Your task to perform on an android device: find photos in the google photos app Image 0: 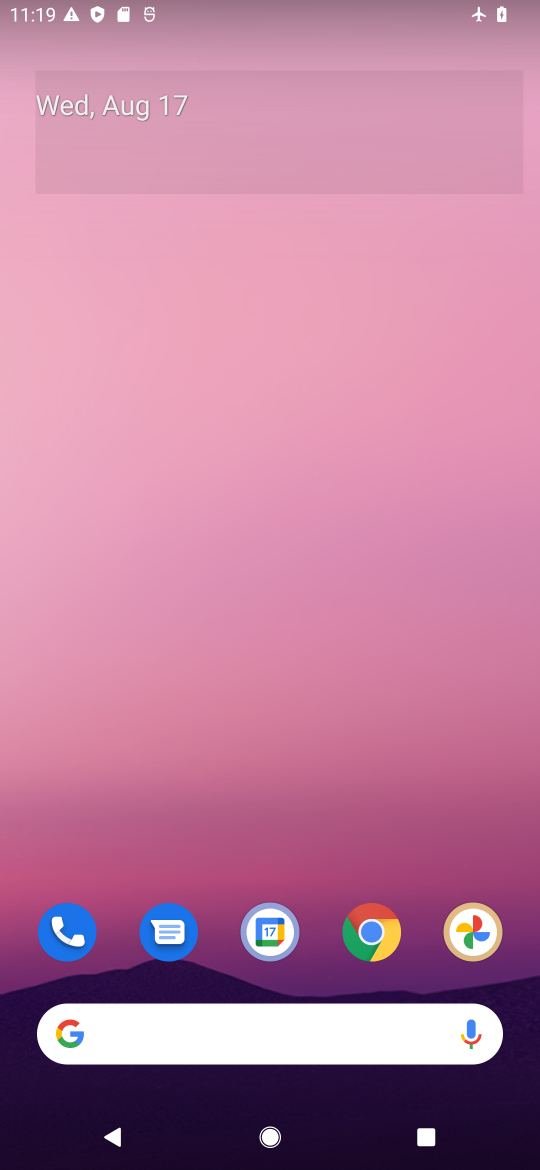
Step 0: drag from (333, 711) to (333, 57)
Your task to perform on an android device: find photos in the google photos app Image 1: 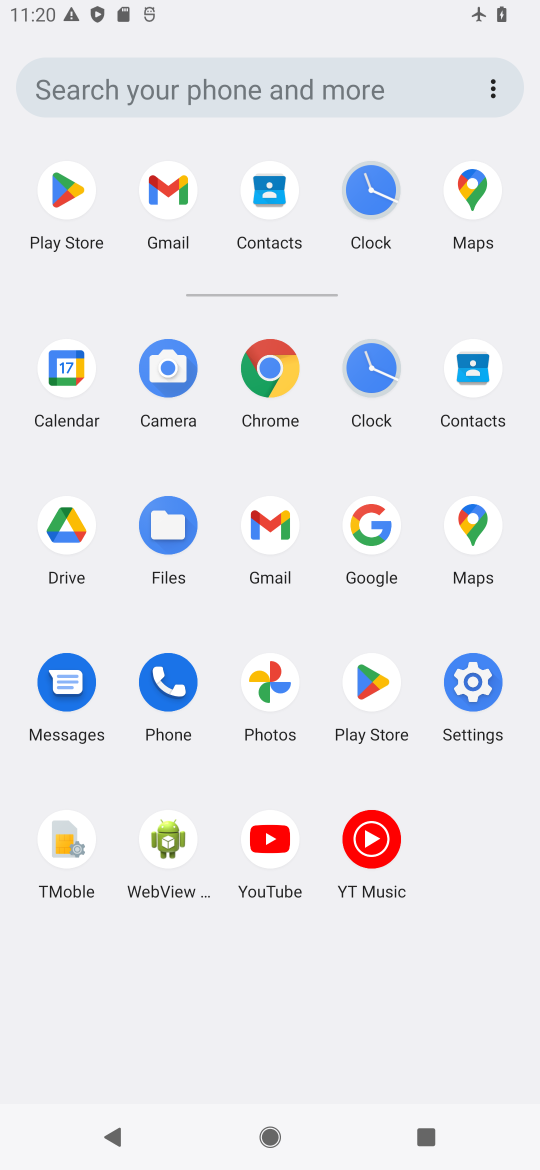
Step 1: click (252, 677)
Your task to perform on an android device: find photos in the google photos app Image 2: 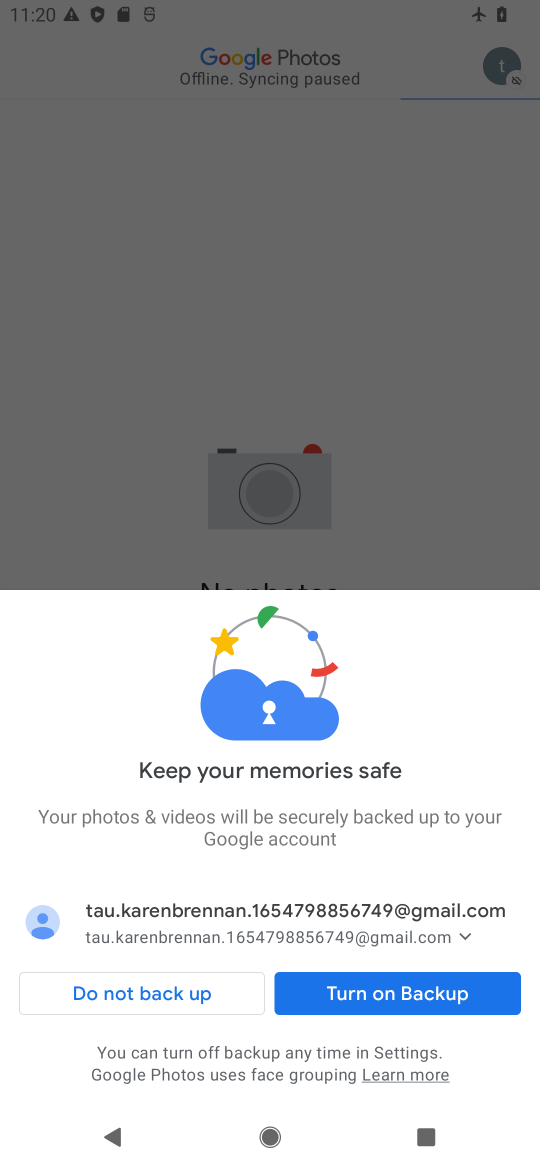
Step 2: click (331, 351)
Your task to perform on an android device: find photos in the google photos app Image 3: 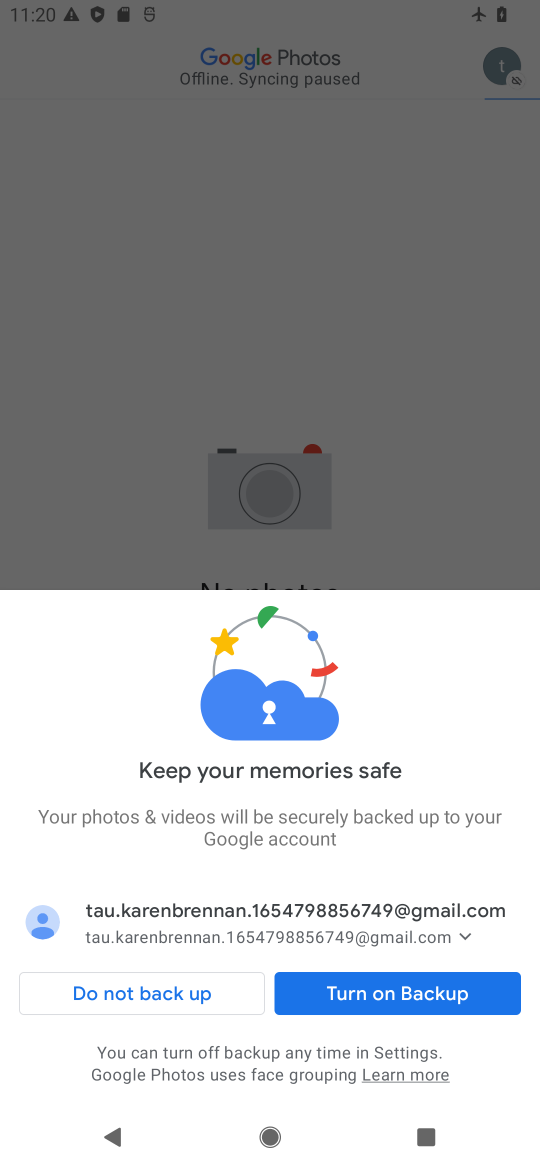
Step 3: click (213, 976)
Your task to perform on an android device: find photos in the google photos app Image 4: 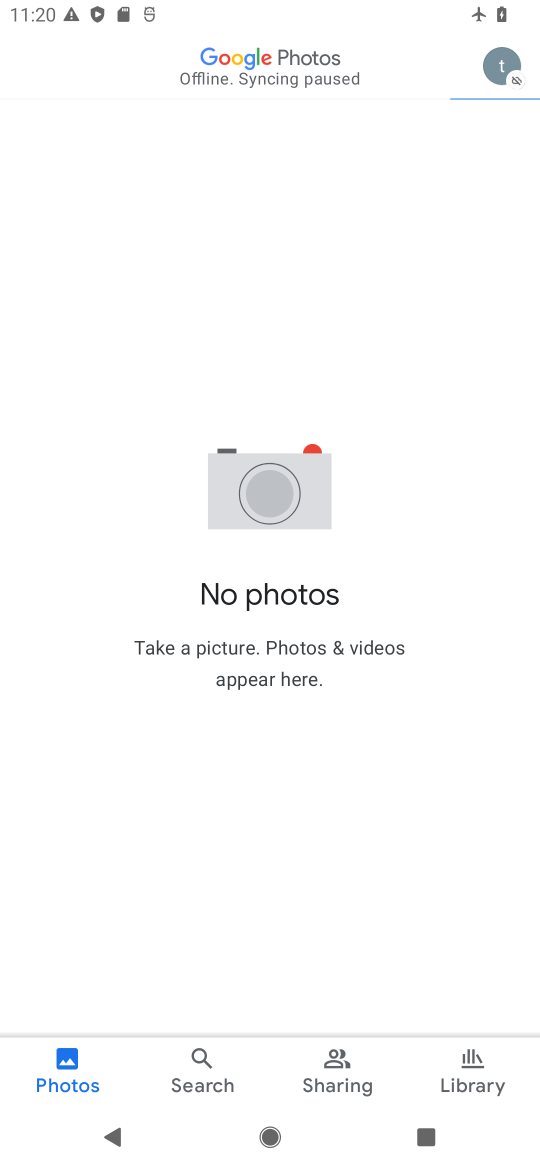
Step 4: task complete